Your task to perform on an android device: change the clock display to digital Image 0: 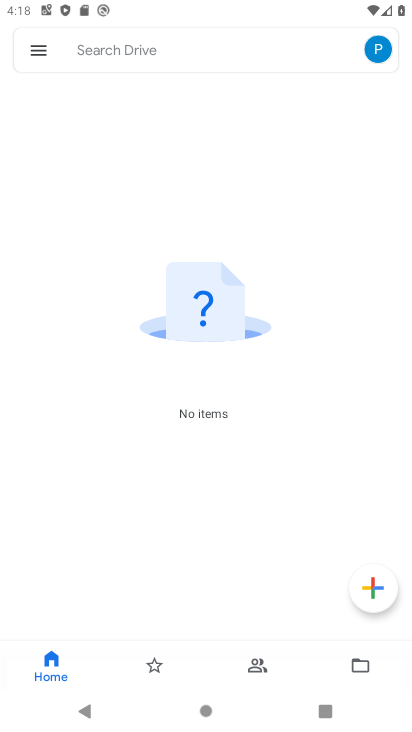
Step 0: press home button
Your task to perform on an android device: change the clock display to digital Image 1: 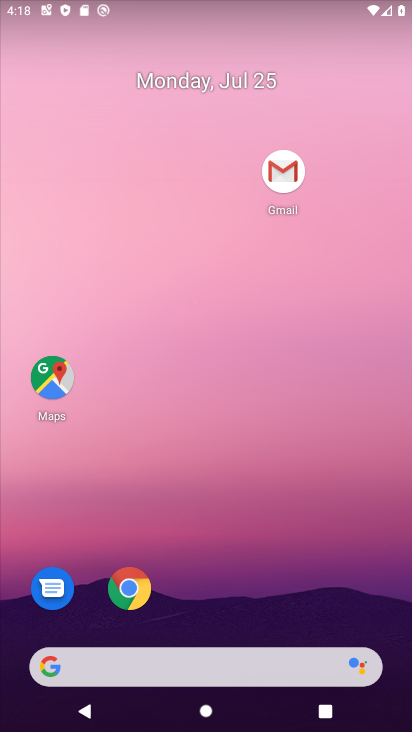
Step 1: drag from (243, 158) to (248, 99)
Your task to perform on an android device: change the clock display to digital Image 2: 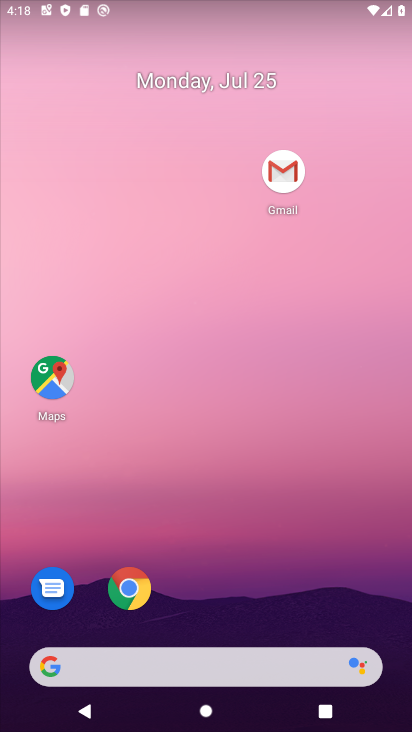
Step 2: drag from (290, 631) to (287, 193)
Your task to perform on an android device: change the clock display to digital Image 3: 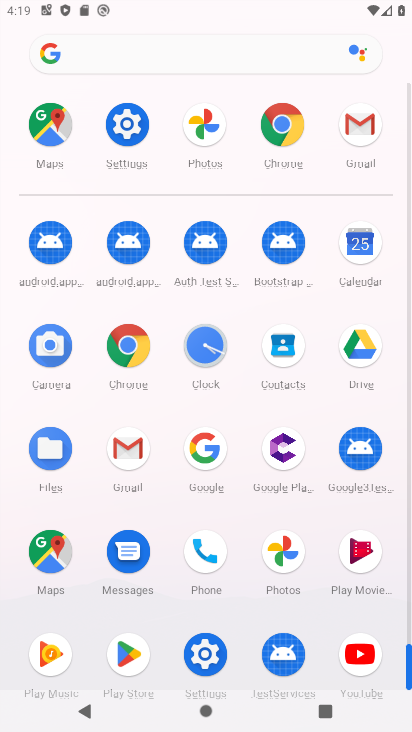
Step 3: click (204, 348)
Your task to perform on an android device: change the clock display to digital Image 4: 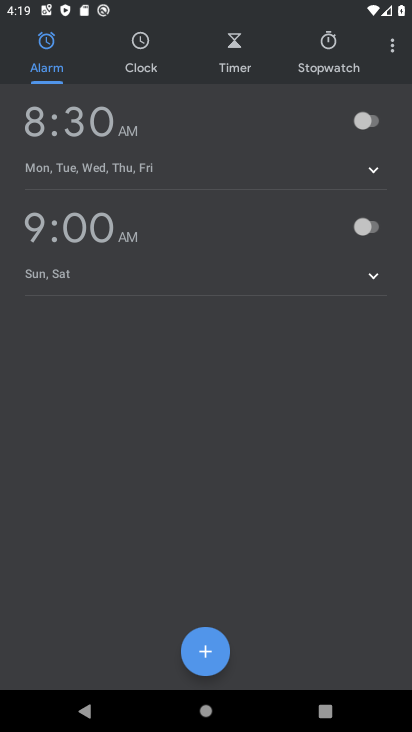
Step 4: click (400, 51)
Your task to perform on an android device: change the clock display to digital Image 5: 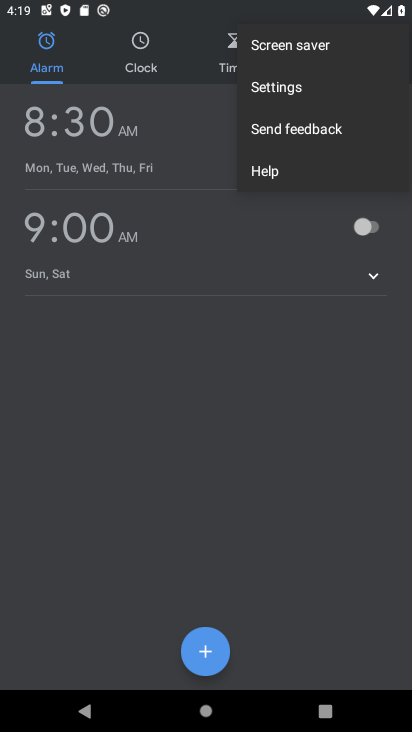
Step 5: click (310, 94)
Your task to perform on an android device: change the clock display to digital Image 6: 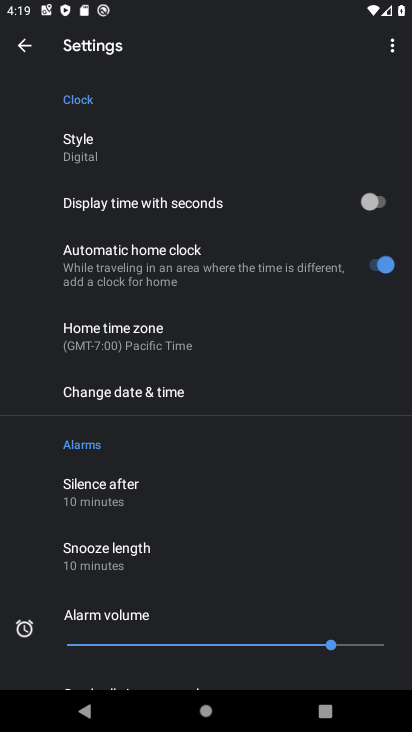
Step 6: task complete